Your task to perform on an android device: find which apps use the phone's location Image 0: 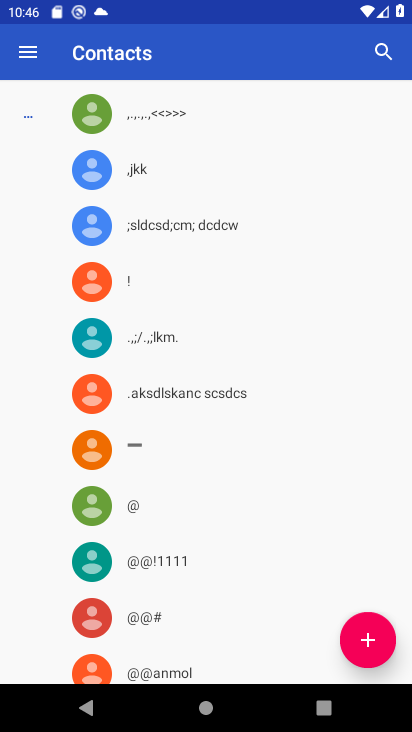
Step 0: press home button
Your task to perform on an android device: find which apps use the phone's location Image 1: 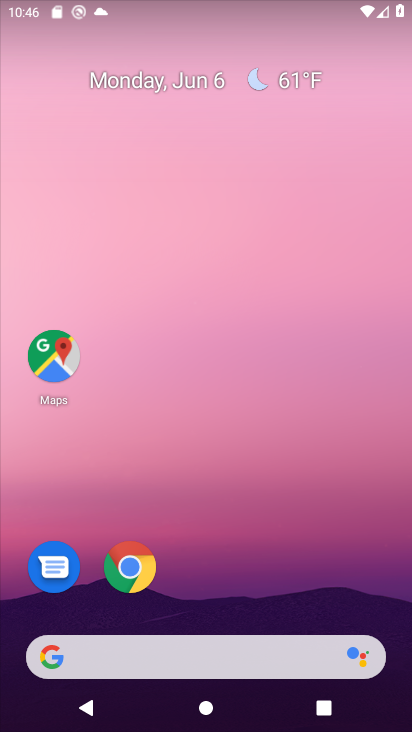
Step 1: drag from (225, 684) to (219, 36)
Your task to perform on an android device: find which apps use the phone's location Image 2: 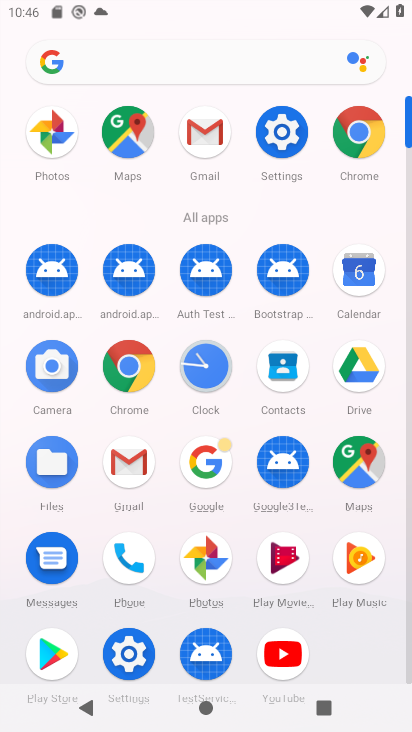
Step 2: click (127, 653)
Your task to perform on an android device: find which apps use the phone's location Image 3: 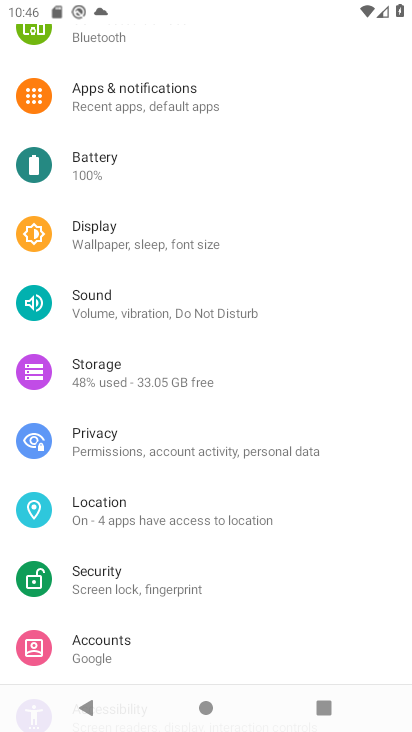
Step 3: click (99, 518)
Your task to perform on an android device: find which apps use the phone's location Image 4: 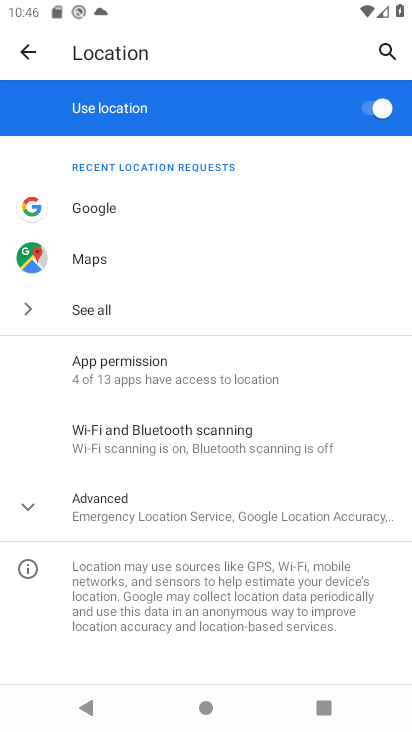
Step 4: click (107, 371)
Your task to perform on an android device: find which apps use the phone's location Image 5: 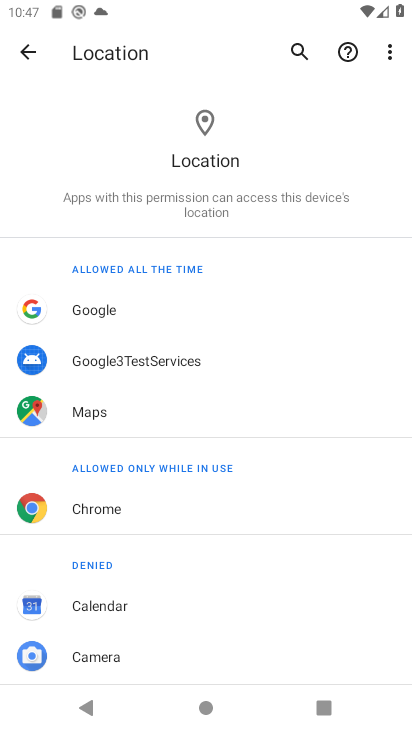
Step 5: task complete